Your task to perform on an android device: Go to display settings Image 0: 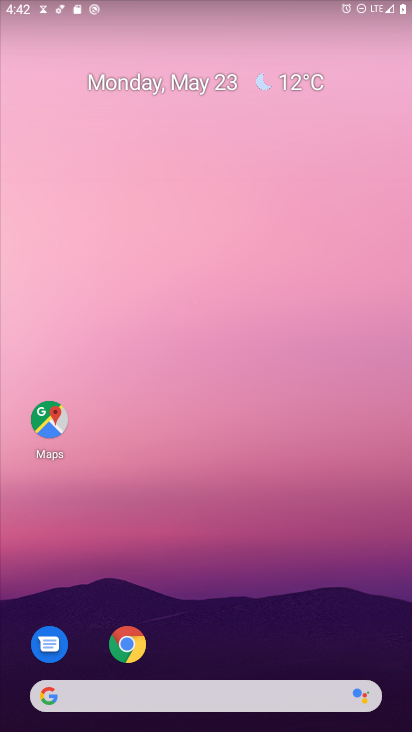
Step 0: drag from (247, 641) to (219, 202)
Your task to perform on an android device: Go to display settings Image 1: 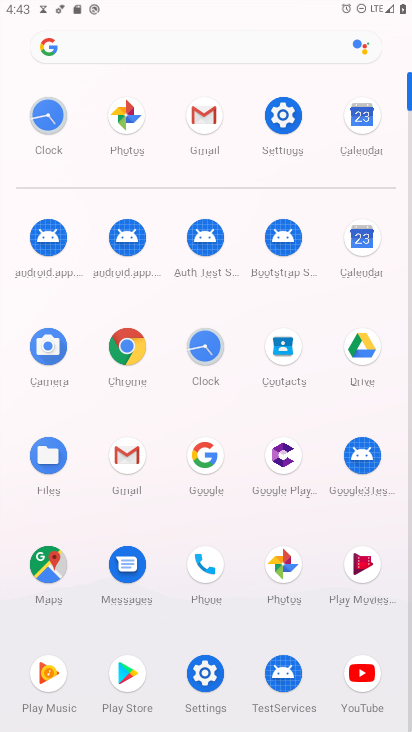
Step 1: click (284, 105)
Your task to perform on an android device: Go to display settings Image 2: 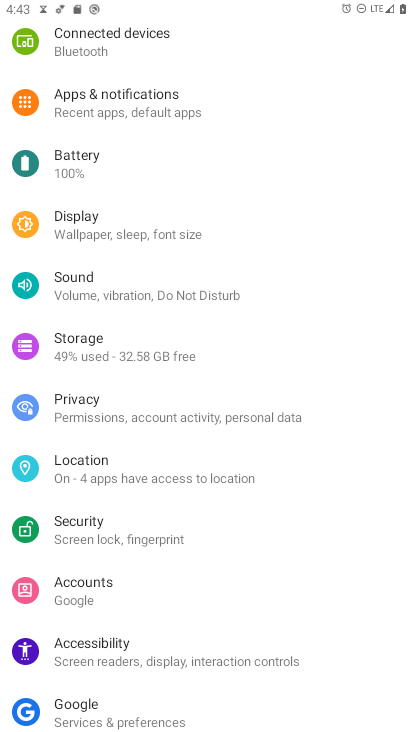
Step 2: click (151, 225)
Your task to perform on an android device: Go to display settings Image 3: 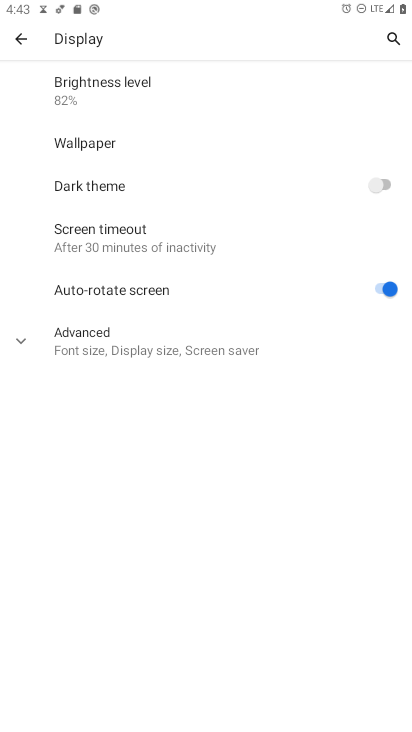
Step 3: task complete